Your task to perform on an android device: Go to eBay Image 0: 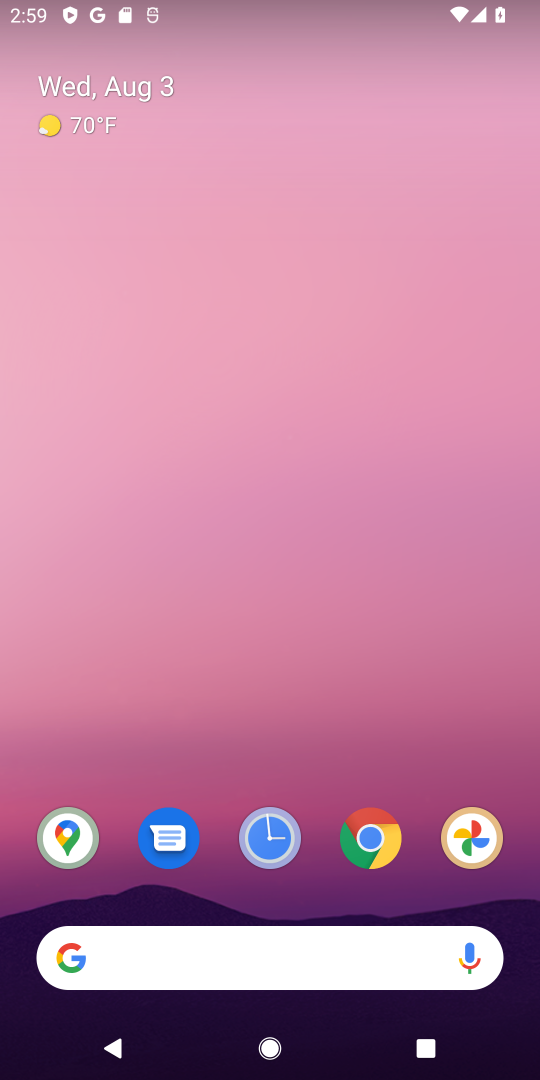
Step 0: click (355, 840)
Your task to perform on an android device: Go to eBay Image 1: 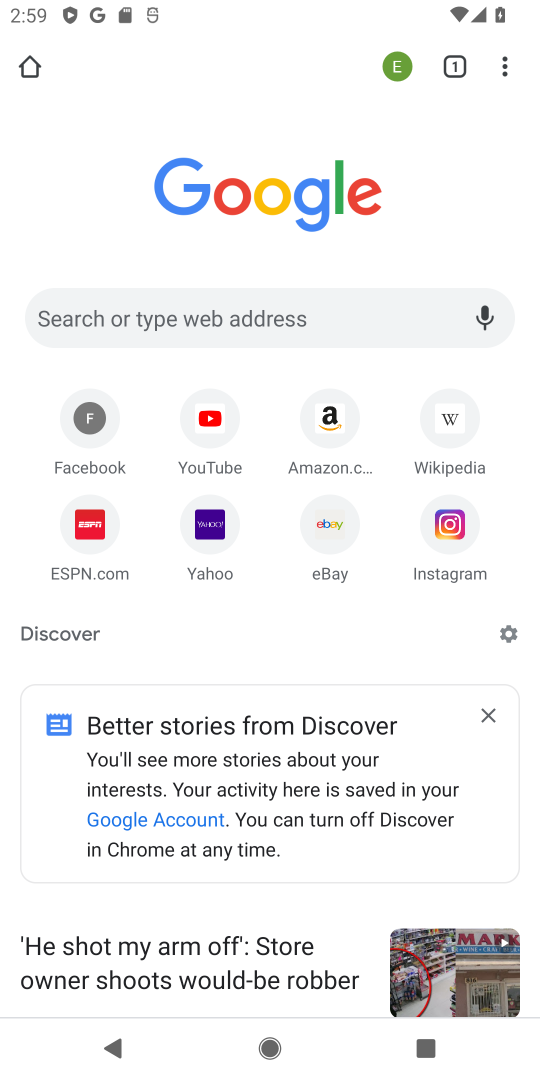
Step 1: click (348, 521)
Your task to perform on an android device: Go to eBay Image 2: 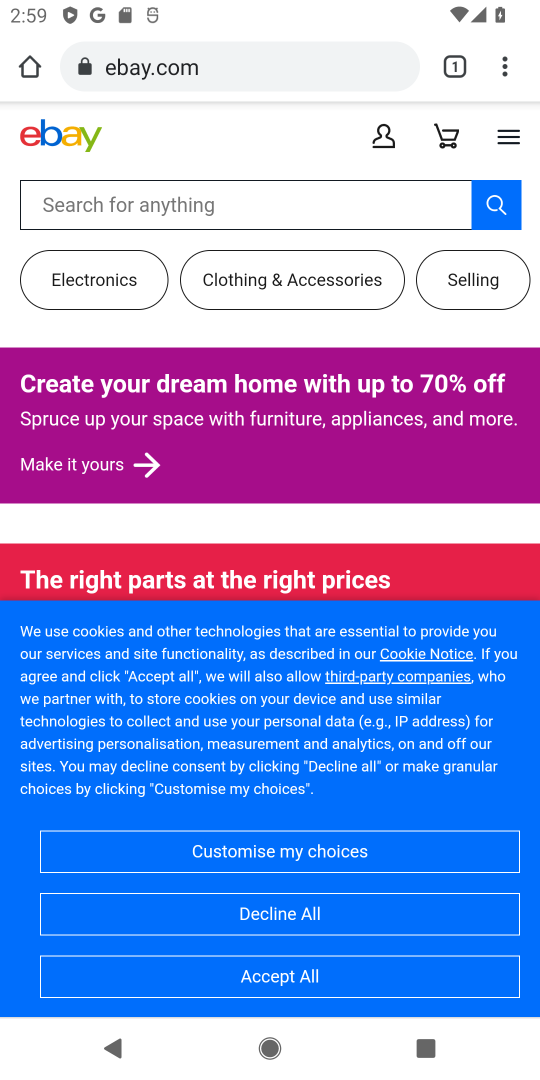
Step 2: task complete